Your task to perform on an android device: set default search engine in the chrome app Image 0: 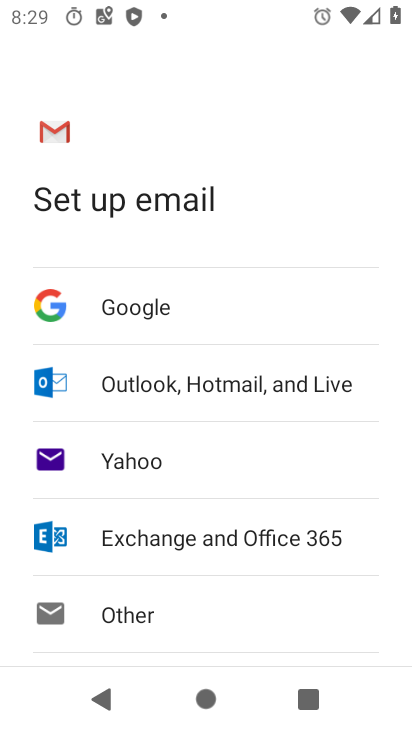
Step 0: press home button
Your task to perform on an android device: set default search engine in the chrome app Image 1: 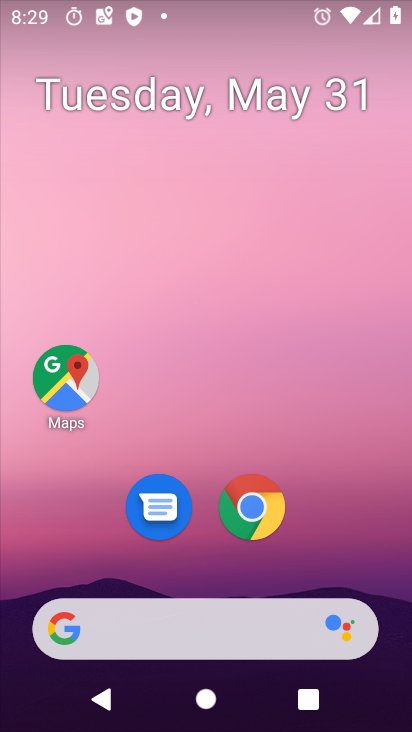
Step 1: click (260, 512)
Your task to perform on an android device: set default search engine in the chrome app Image 2: 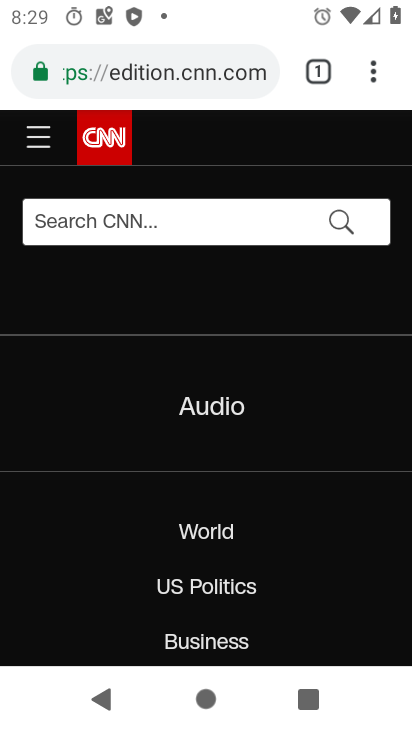
Step 2: click (372, 73)
Your task to perform on an android device: set default search engine in the chrome app Image 3: 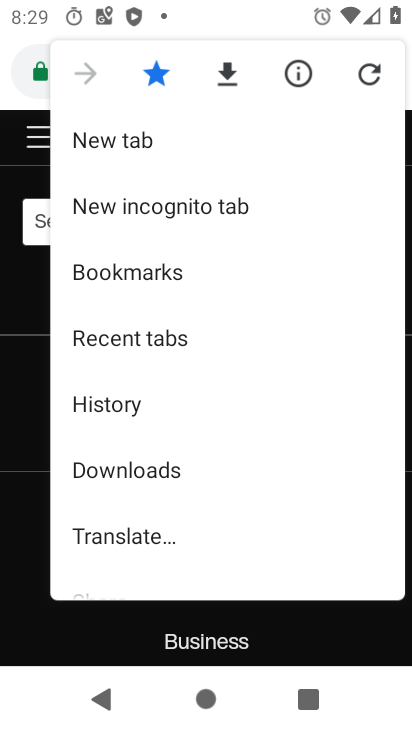
Step 3: drag from (236, 474) to (251, 102)
Your task to perform on an android device: set default search engine in the chrome app Image 4: 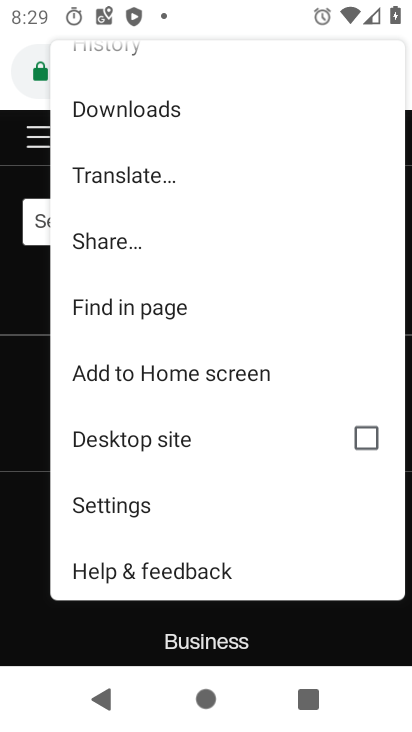
Step 4: click (121, 508)
Your task to perform on an android device: set default search engine in the chrome app Image 5: 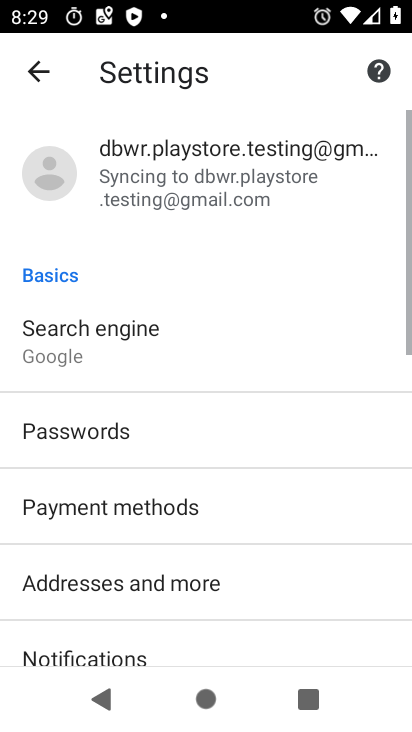
Step 5: click (58, 328)
Your task to perform on an android device: set default search engine in the chrome app Image 6: 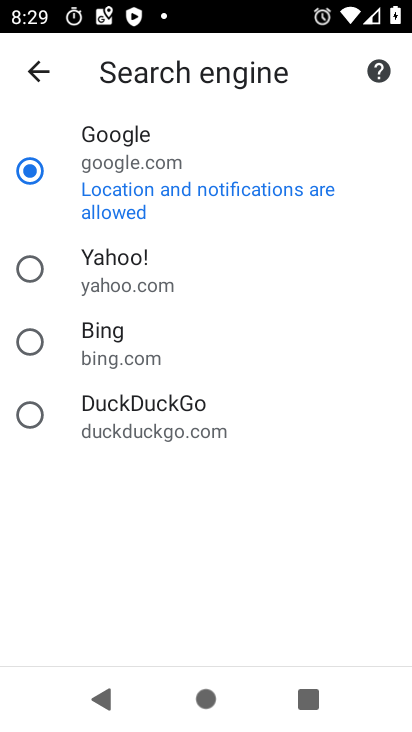
Step 6: click (26, 279)
Your task to perform on an android device: set default search engine in the chrome app Image 7: 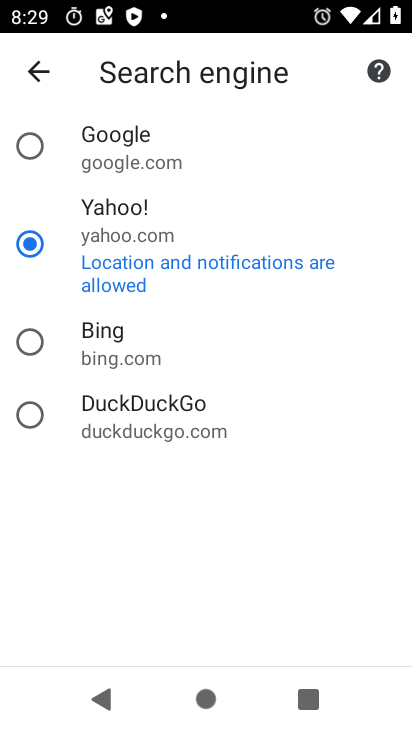
Step 7: task complete